Your task to perform on an android device: open app "AliExpress" (install if not already installed) Image 0: 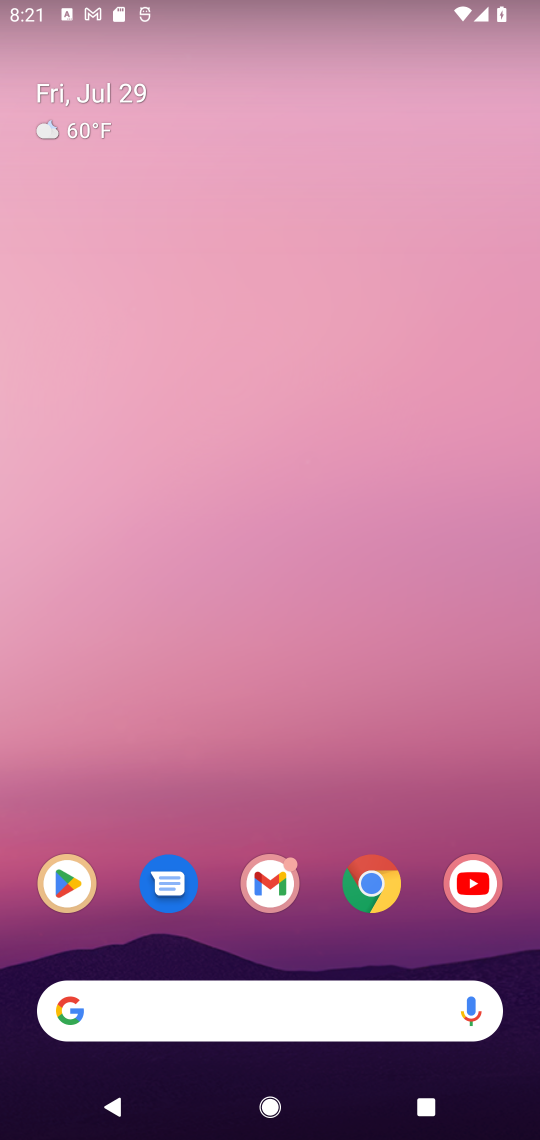
Step 0: click (67, 883)
Your task to perform on an android device: open app "AliExpress" (install if not already installed) Image 1: 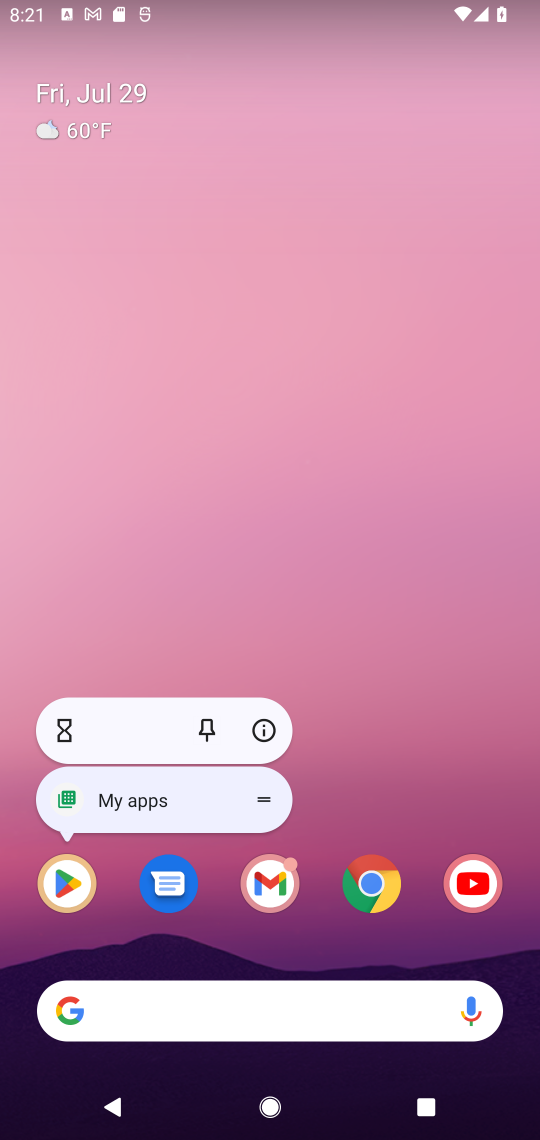
Step 1: click (74, 883)
Your task to perform on an android device: open app "AliExpress" (install if not already installed) Image 2: 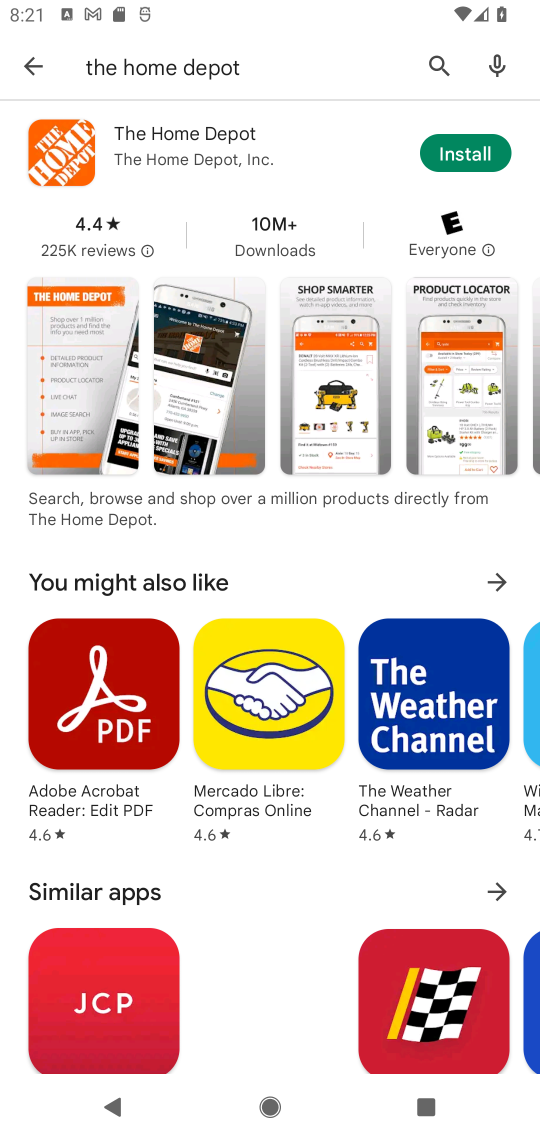
Step 2: click (435, 72)
Your task to perform on an android device: open app "AliExpress" (install if not already installed) Image 3: 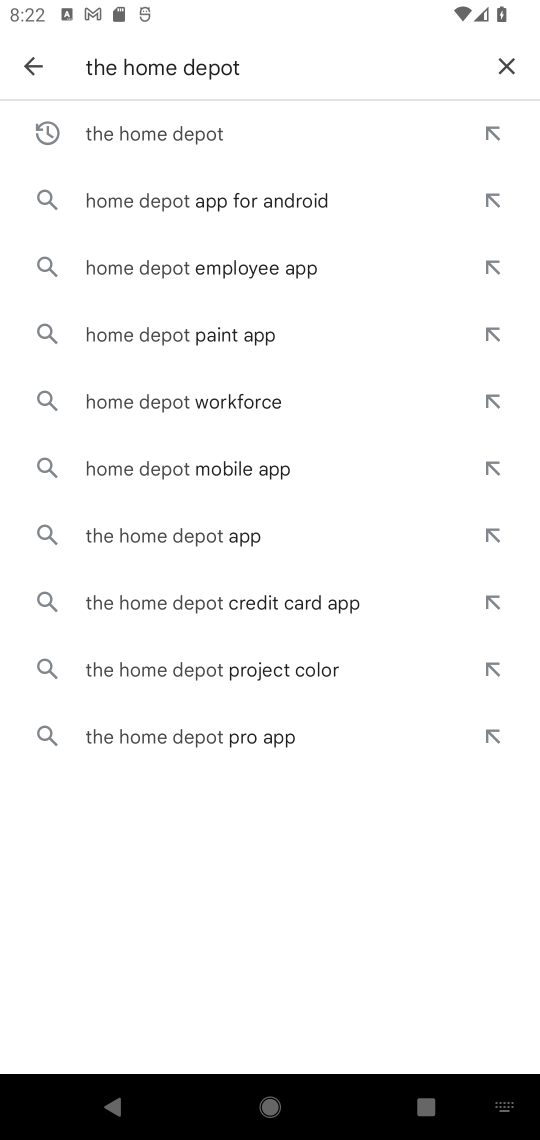
Step 3: click (506, 70)
Your task to perform on an android device: open app "AliExpress" (install if not already installed) Image 4: 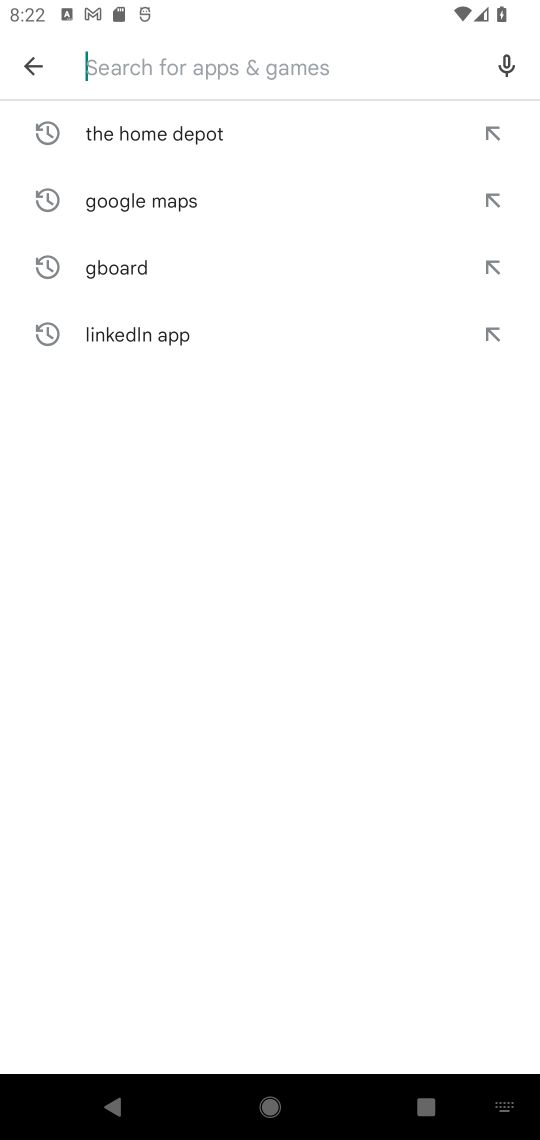
Step 4: click (191, 77)
Your task to perform on an android device: open app "AliExpress" (install if not already installed) Image 5: 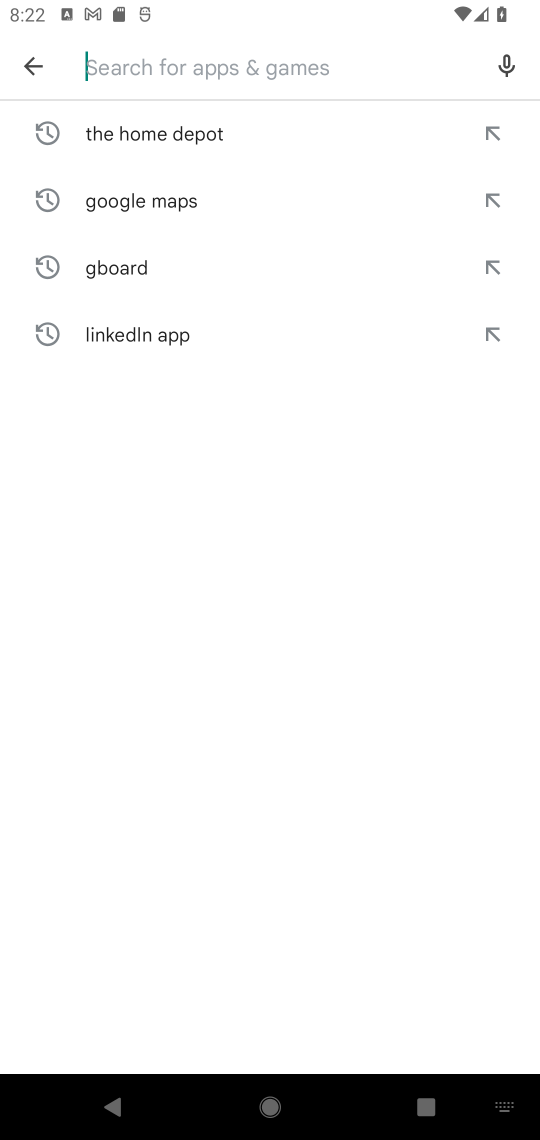
Step 5: type "ali express"
Your task to perform on an android device: open app "AliExpress" (install if not already installed) Image 6: 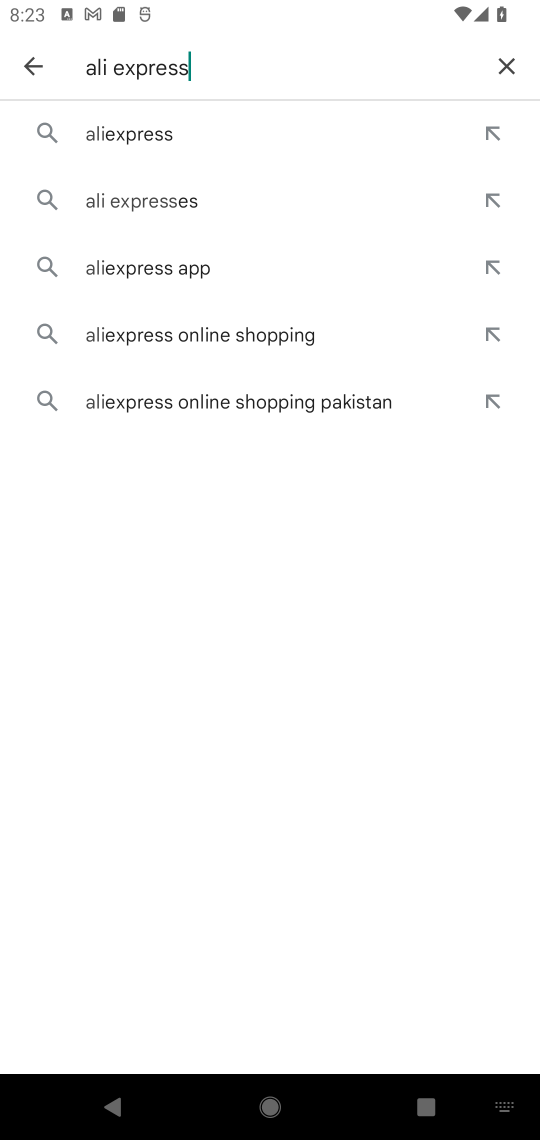
Step 6: click (129, 124)
Your task to perform on an android device: open app "AliExpress" (install if not already installed) Image 7: 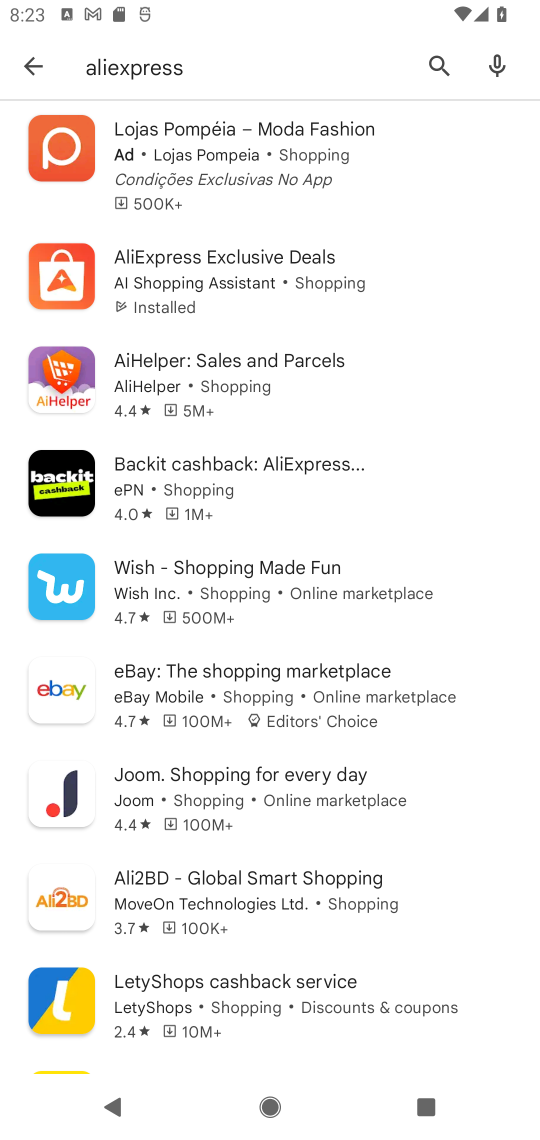
Step 7: click (234, 291)
Your task to perform on an android device: open app "AliExpress" (install if not already installed) Image 8: 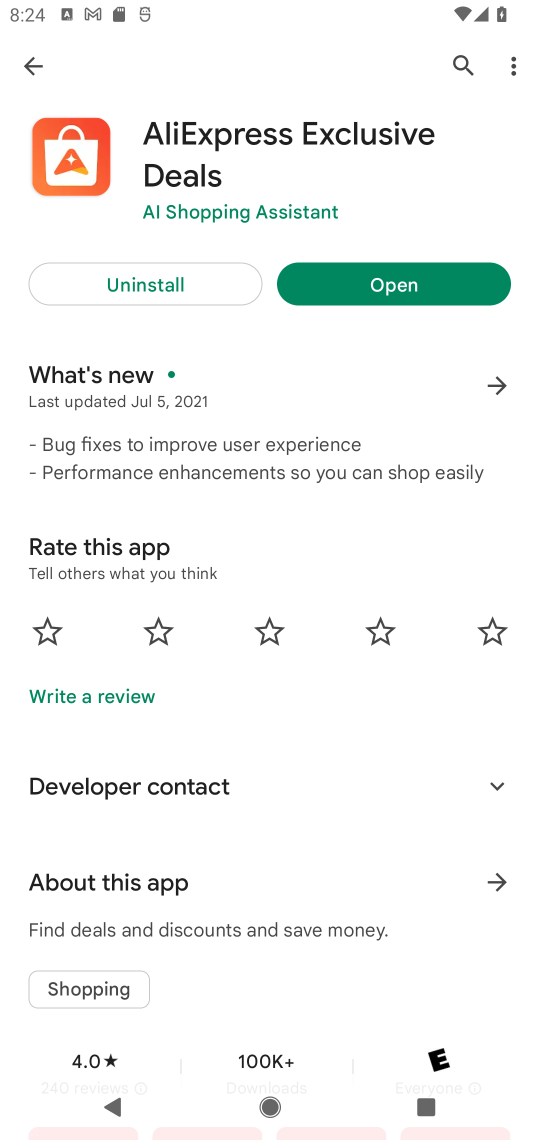
Step 8: click (382, 274)
Your task to perform on an android device: open app "AliExpress" (install if not already installed) Image 9: 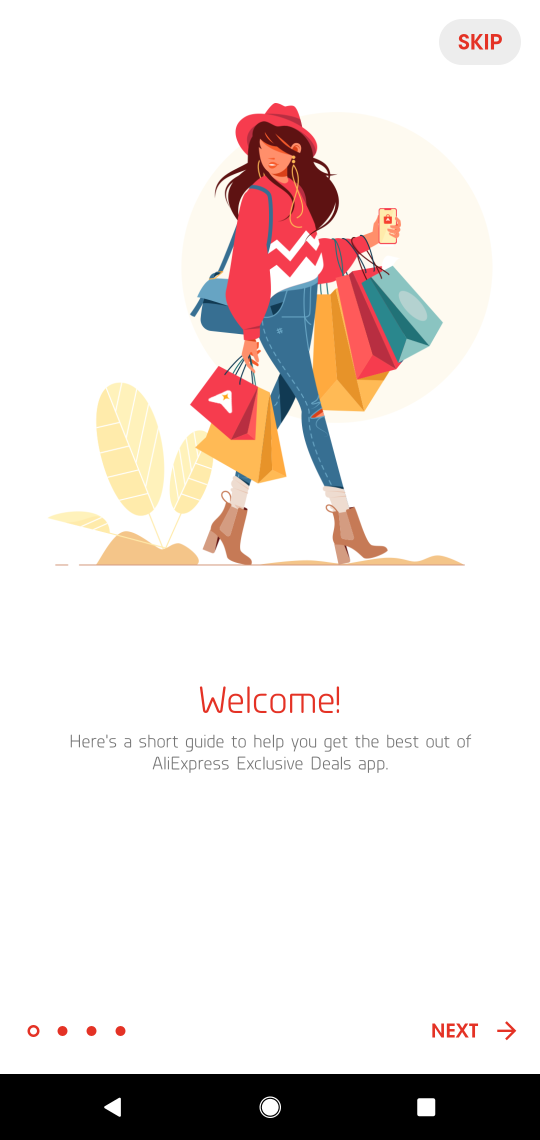
Step 9: task complete